Your task to perform on an android device: Do I have any events tomorrow? Image 0: 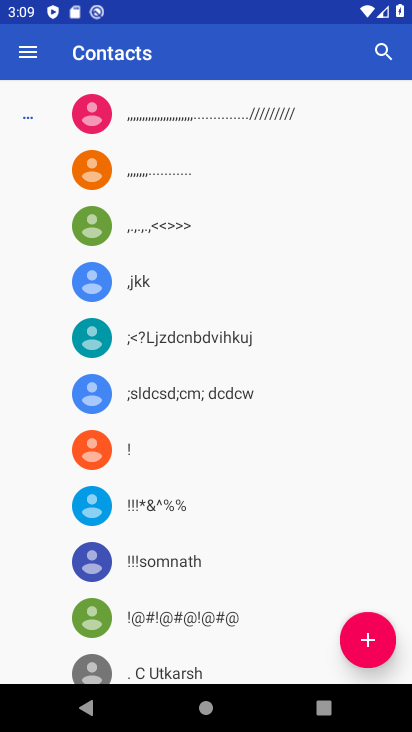
Step 0: press home button
Your task to perform on an android device: Do I have any events tomorrow? Image 1: 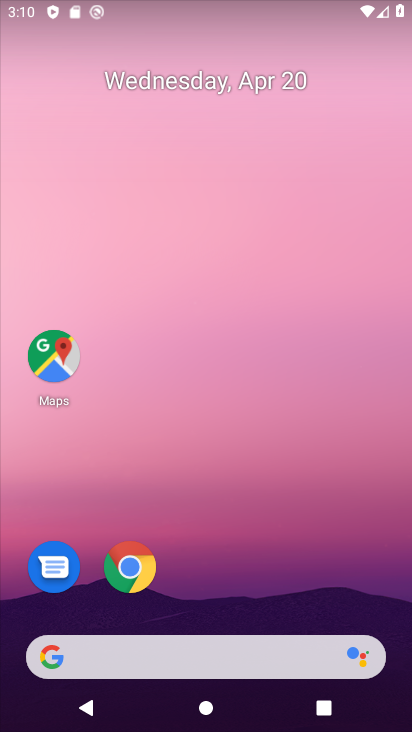
Step 1: drag from (347, 534) to (346, 69)
Your task to perform on an android device: Do I have any events tomorrow? Image 2: 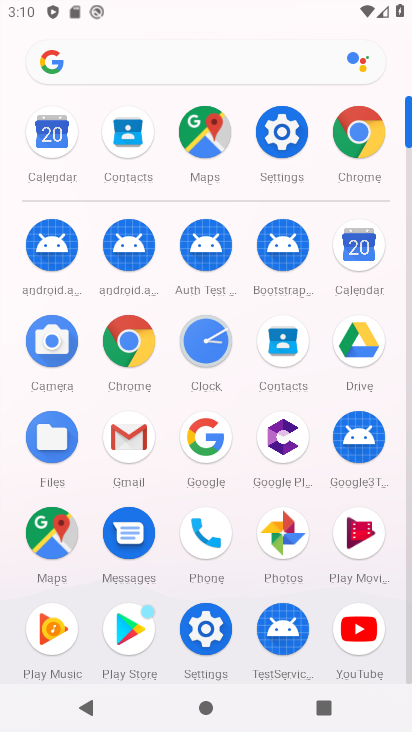
Step 2: click (358, 248)
Your task to perform on an android device: Do I have any events tomorrow? Image 3: 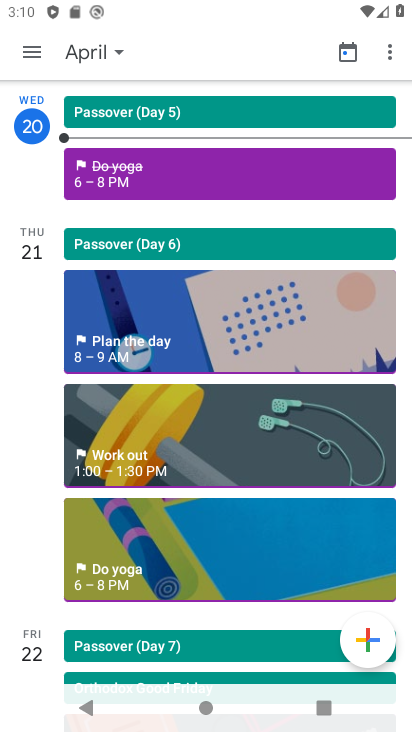
Step 3: click (92, 55)
Your task to perform on an android device: Do I have any events tomorrow? Image 4: 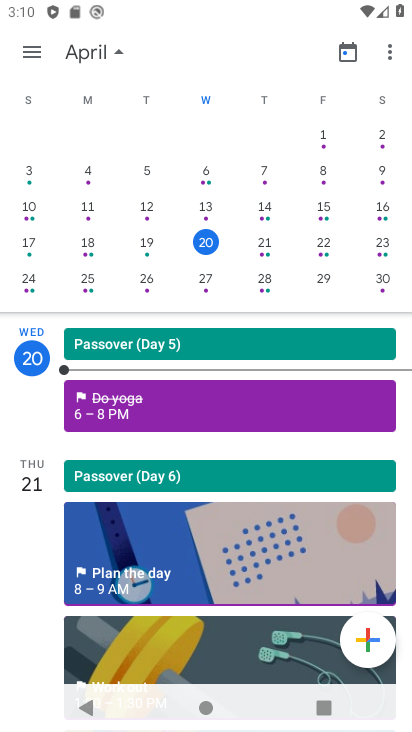
Step 4: click (256, 245)
Your task to perform on an android device: Do I have any events tomorrow? Image 5: 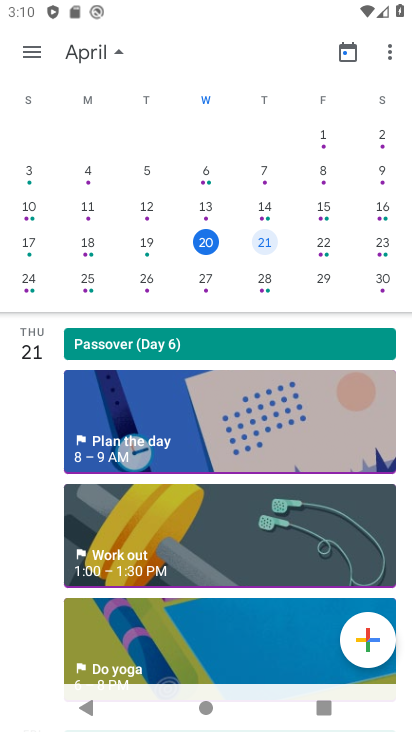
Step 5: click (126, 57)
Your task to perform on an android device: Do I have any events tomorrow? Image 6: 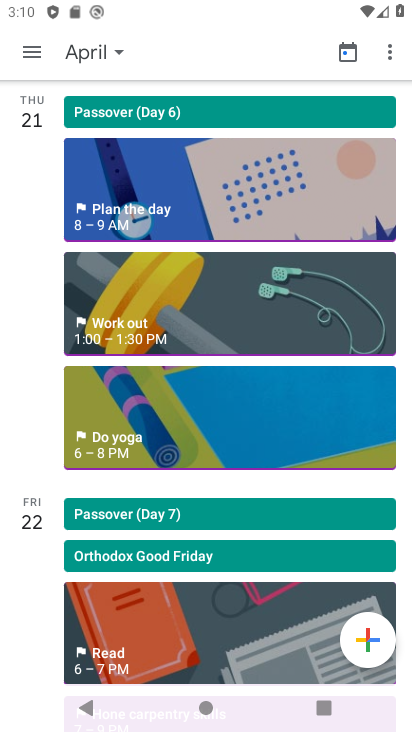
Step 6: task complete